Your task to perform on an android device: all mails in gmail Image 0: 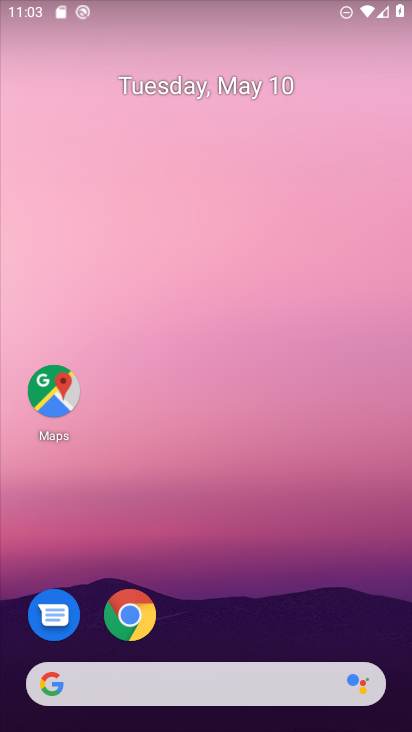
Step 0: drag from (186, 638) to (260, 256)
Your task to perform on an android device: all mails in gmail Image 1: 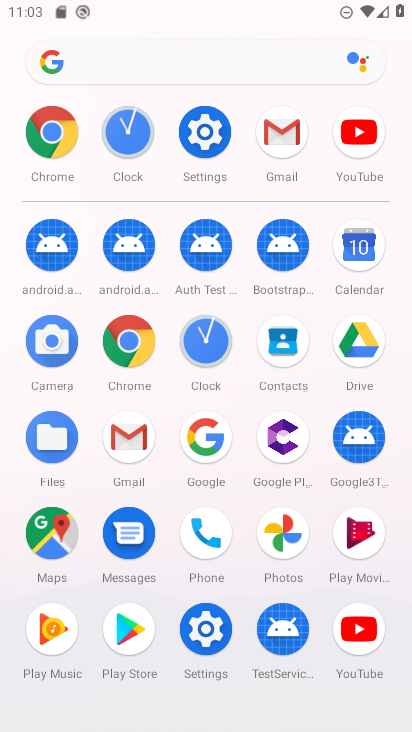
Step 1: click (139, 446)
Your task to perform on an android device: all mails in gmail Image 2: 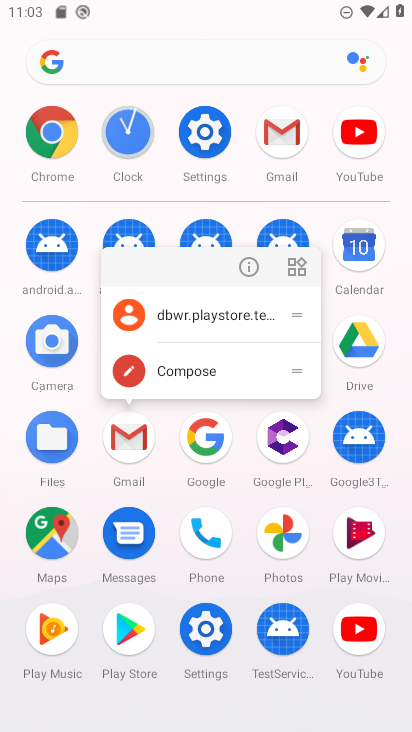
Step 2: click (255, 267)
Your task to perform on an android device: all mails in gmail Image 3: 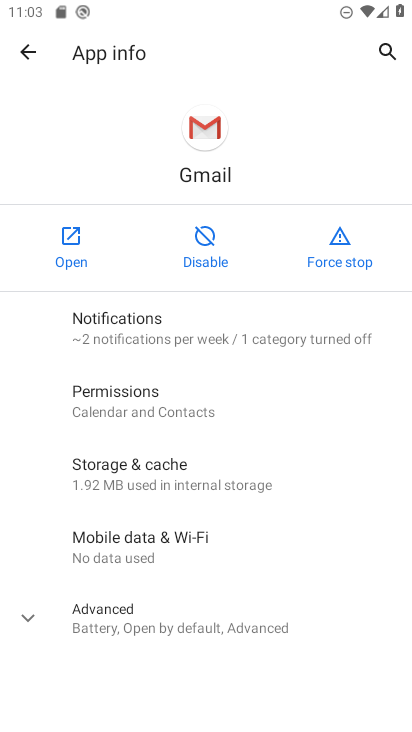
Step 3: click (64, 239)
Your task to perform on an android device: all mails in gmail Image 4: 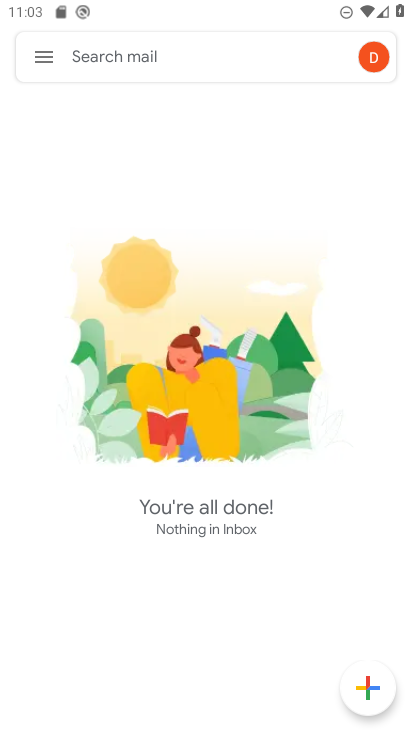
Step 4: click (45, 57)
Your task to perform on an android device: all mails in gmail Image 5: 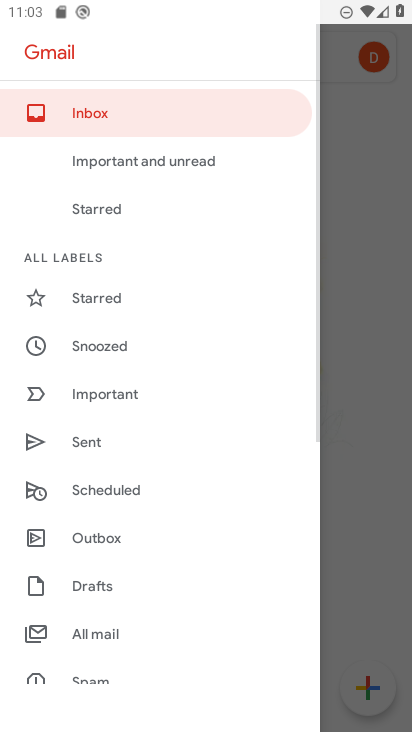
Step 5: drag from (128, 596) to (198, 131)
Your task to perform on an android device: all mails in gmail Image 6: 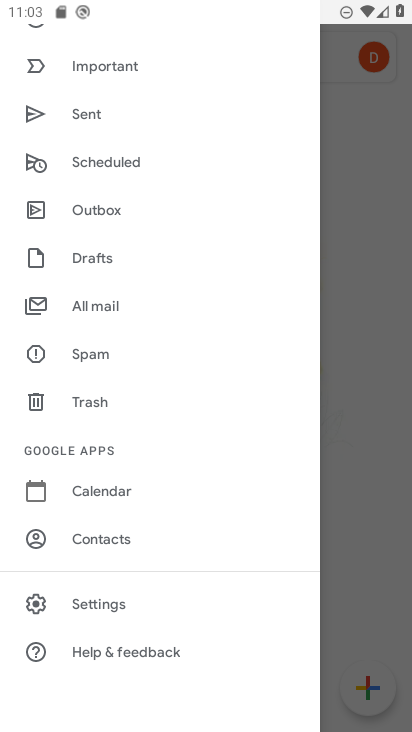
Step 6: click (126, 302)
Your task to perform on an android device: all mails in gmail Image 7: 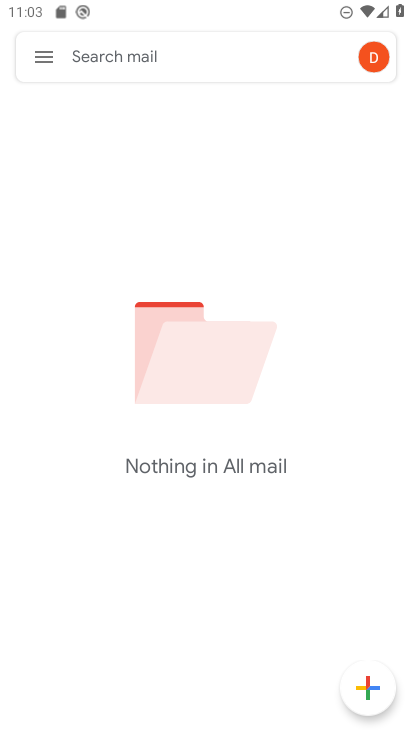
Step 7: task complete